Your task to perform on an android device: Open settings Image 0: 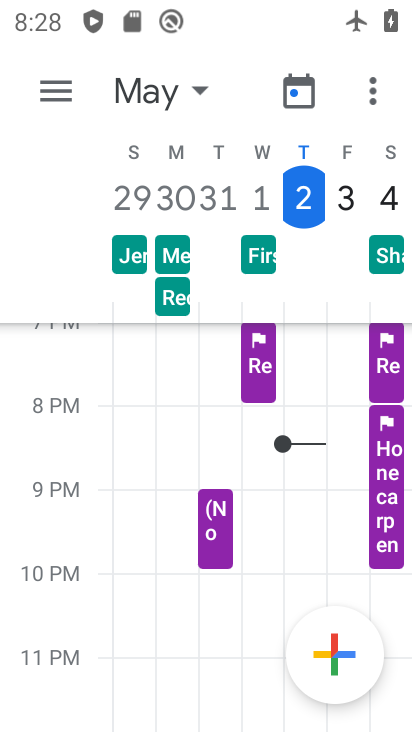
Step 0: press home button
Your task to perform on an android device: Open settings Image 1: 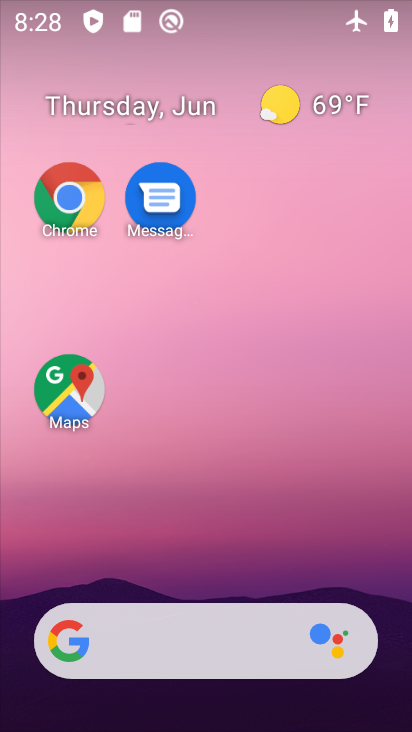
Step 1: drag from (204, 589) to (184, 158)
Your task to perform on an android device: Open settings Image 2: 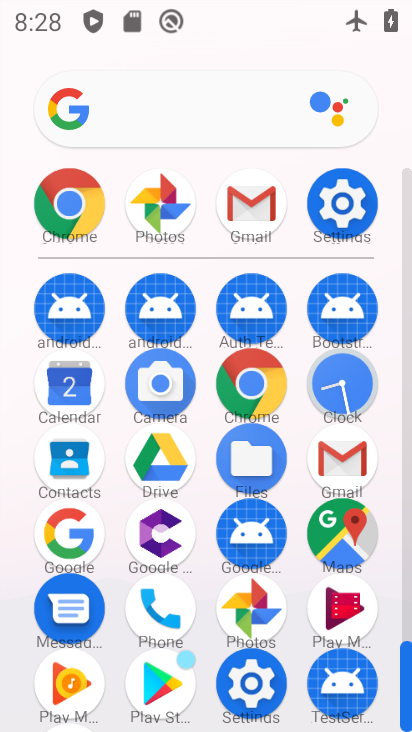
Step 2: click (353, 196)
Your task to perform on an android device: Open settings Image 3: 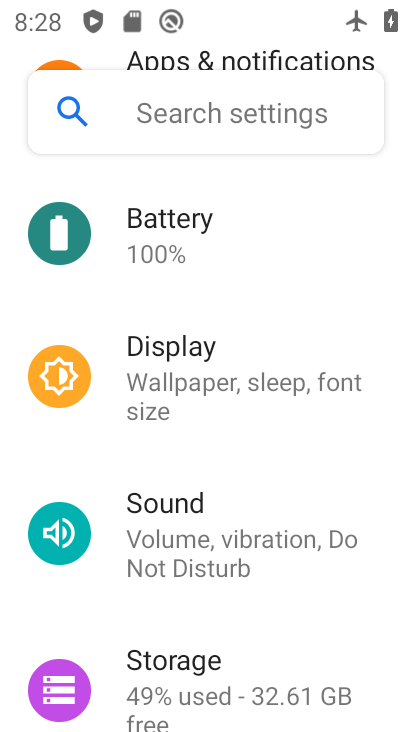
Step 3: task complete